Your task to perform on an android device: turn off javascript in the chrome app Image 0: 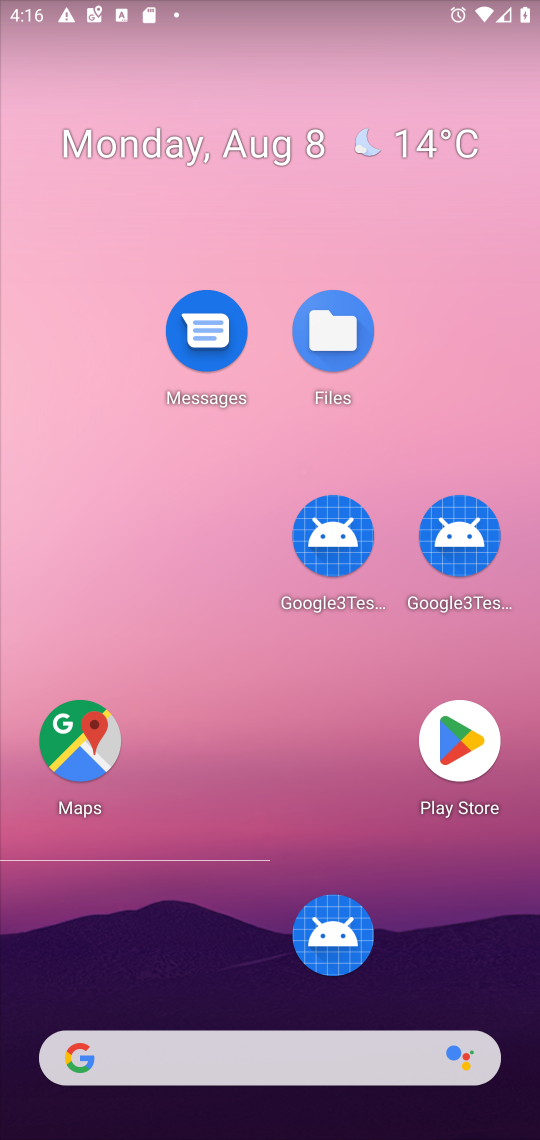
Step 0: drag from (279, 1040) to (387, 16)
Your task to perform on an android device: turn off javascript in the chrome app Image 1: 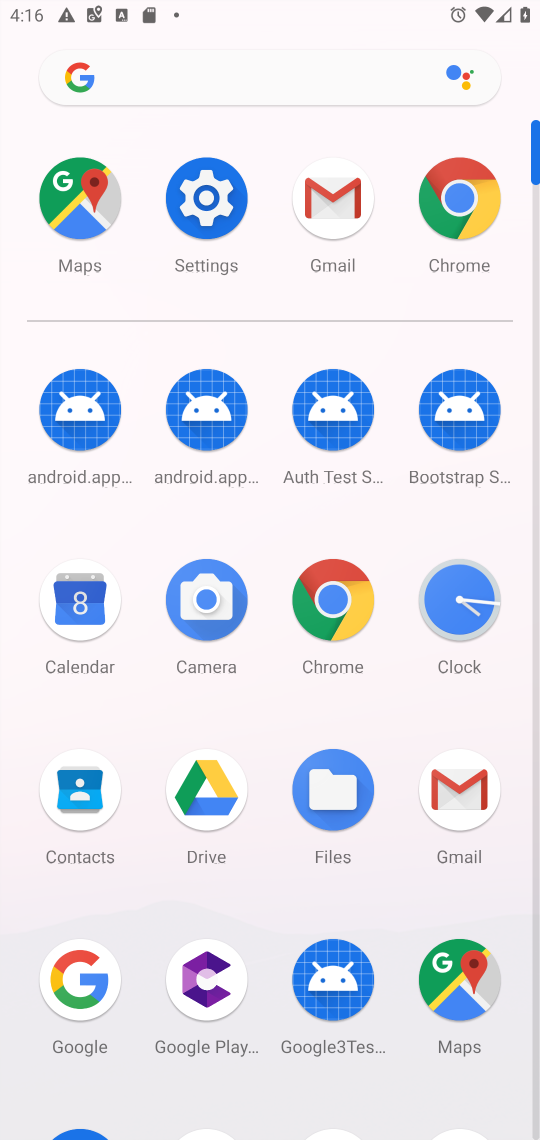
Step 1: click (315, 603)
Your task to perform on an android device: turn off javascript in the chrome app Image 2: 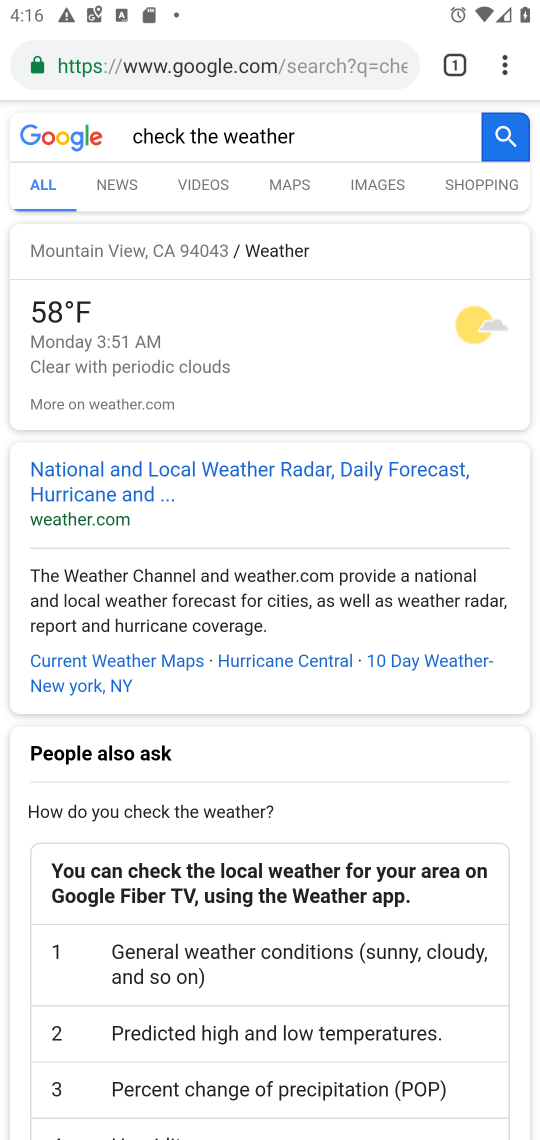
Step 2: click (501, 56)
Your task to perform on an android device: turn off javascript in the chrome app Image 3: 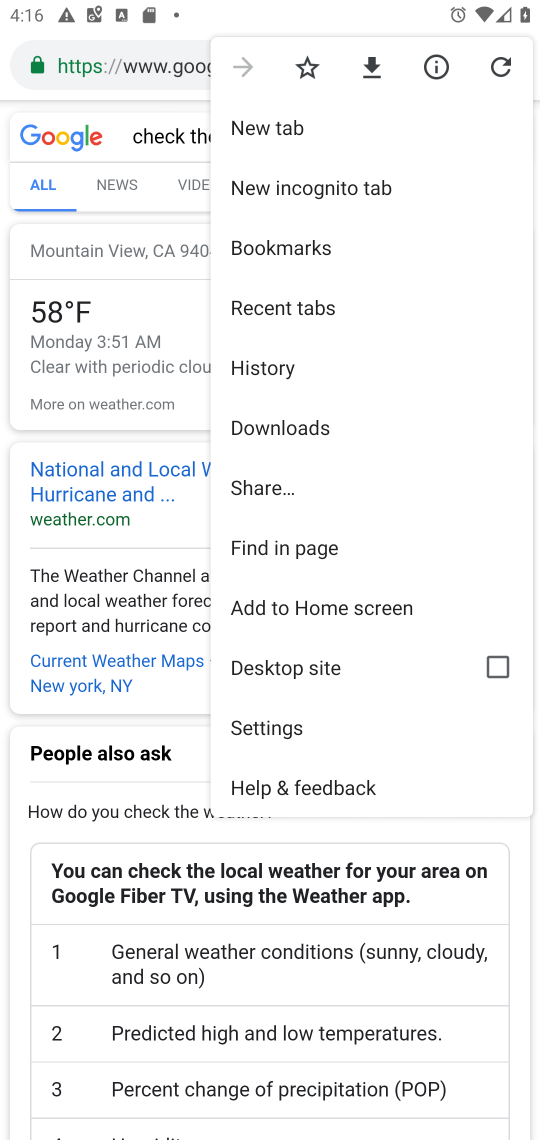
Step 3: click (287, 723)
Your task to perform on an android device: turn off javascript in the chrome app Image 4: 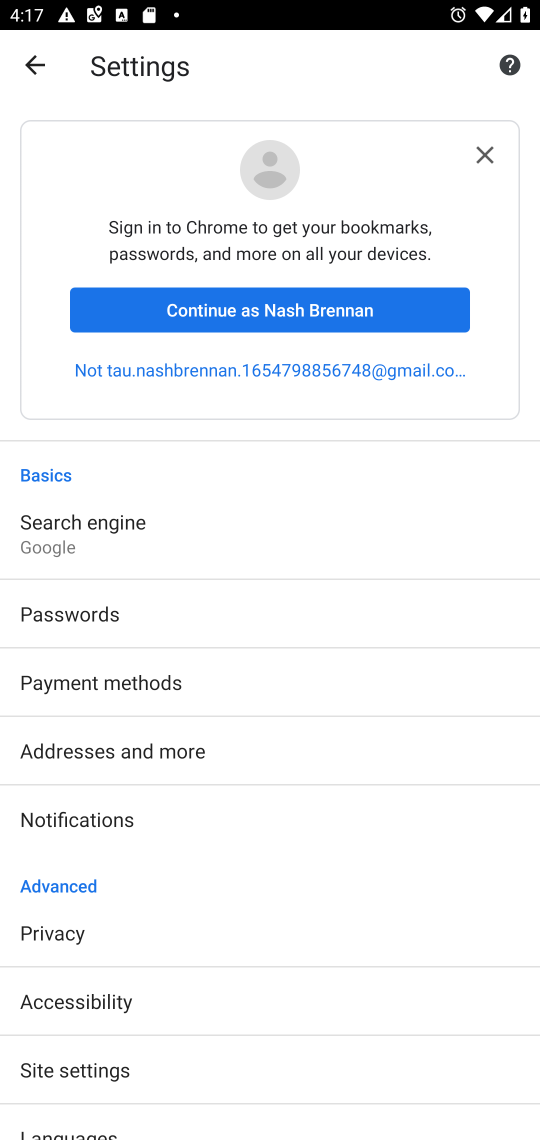
Step 4: drag from (314, 918) to (366, 421)
Your task to perform on an android device: turn off javascript in the chrome app Image 5: 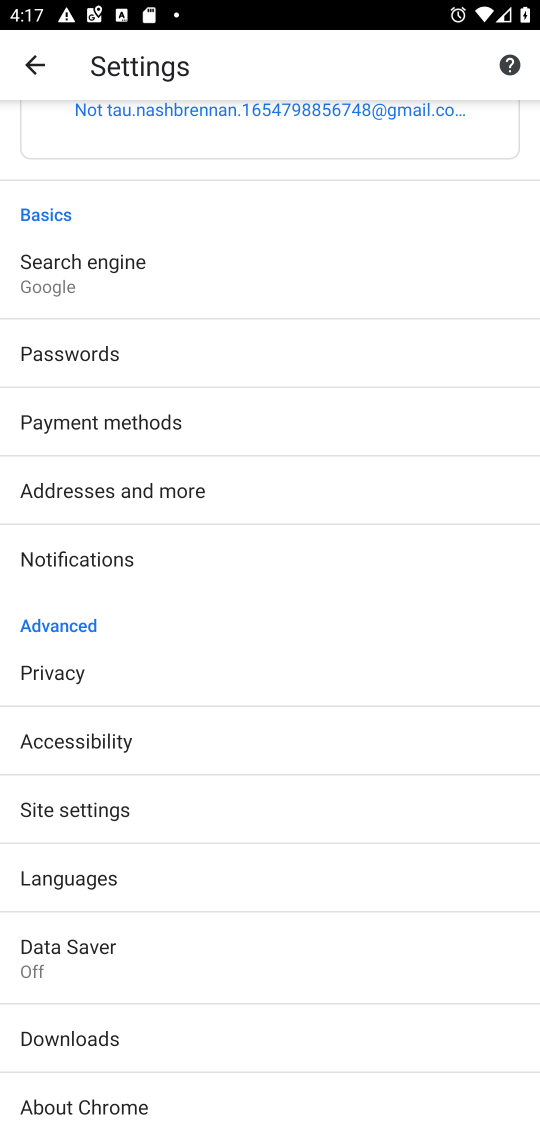
Step 5: click (151, 819)
Your task to perform on an android device: turn off javascript in the chrome app Image 6: 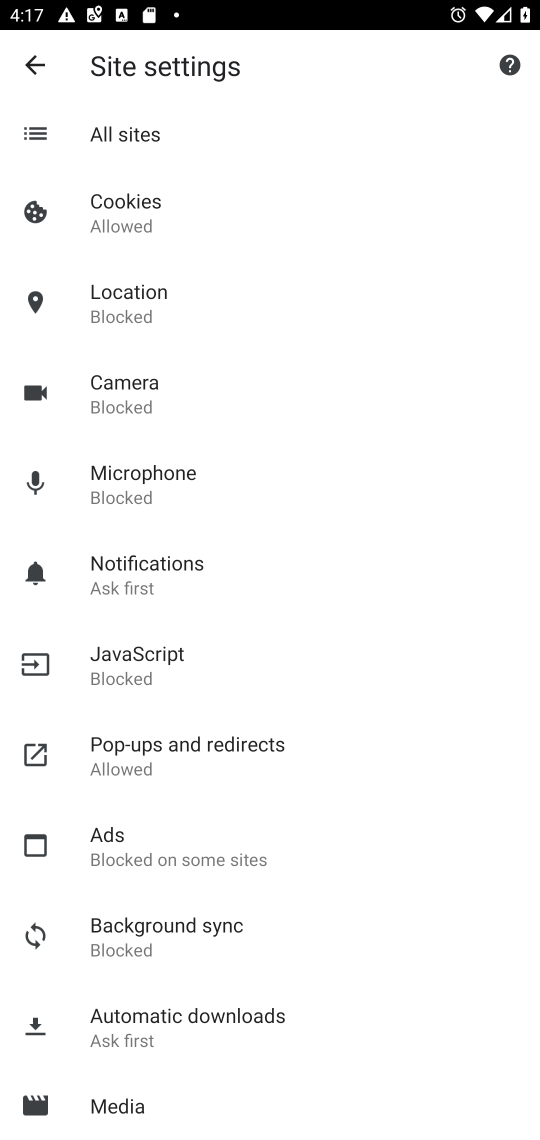
Step 6: click (138, 678)
Your task to perform on an android device: turn off javascript in the chrome app Image 7: 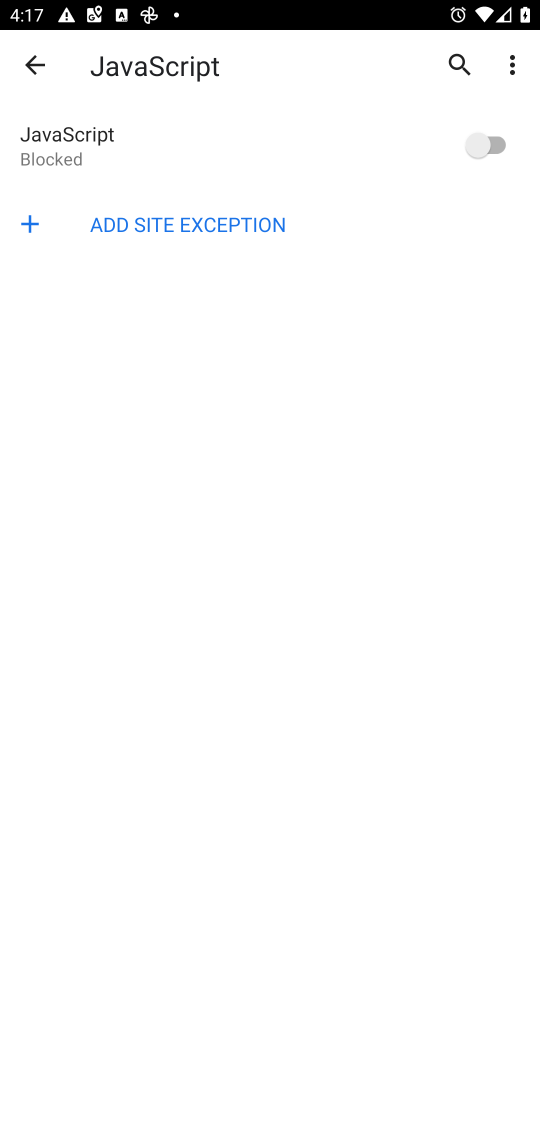
Step 7: task complete